Your task to perform on an android device: Clear the cart on costco. Image 0: 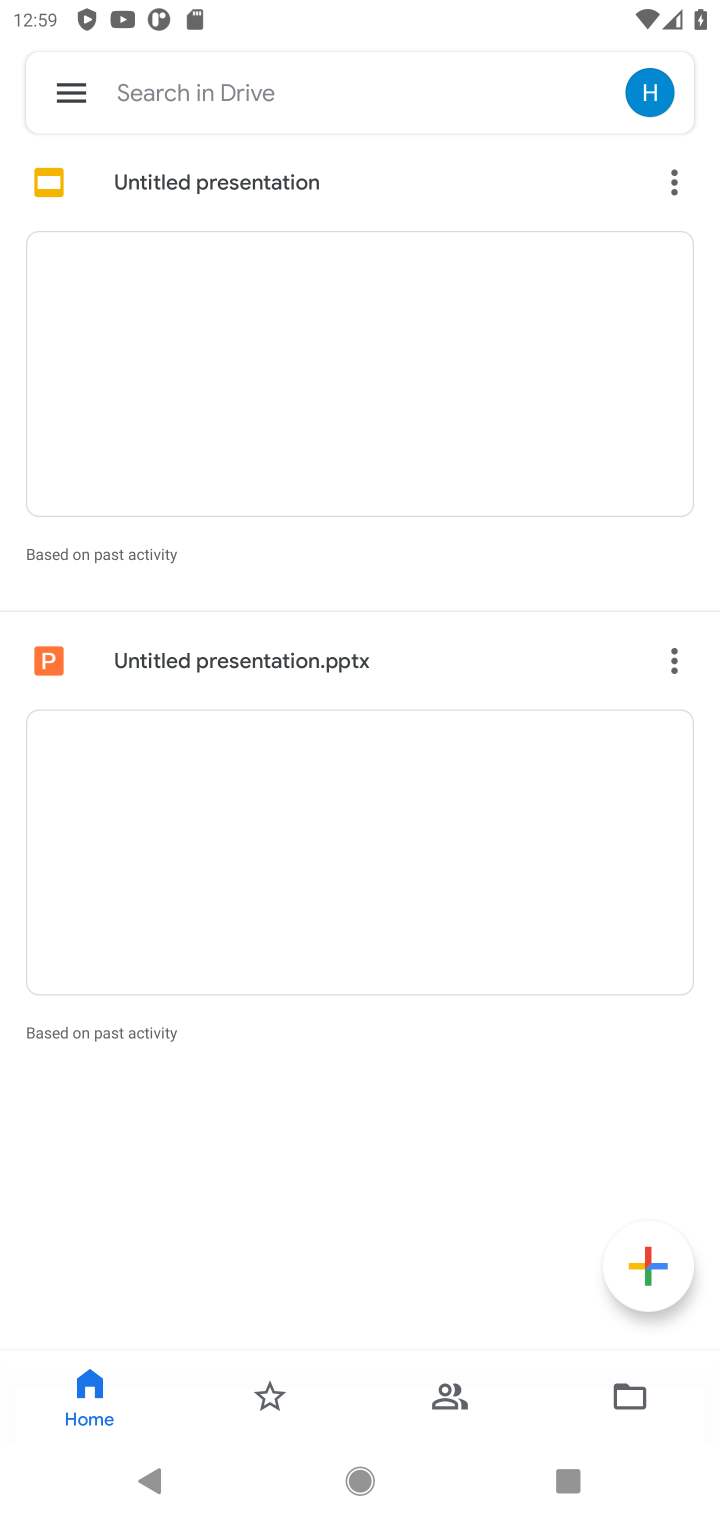
Step 0: press home button
Your task to perform on an android device: Clear the cart on costco. Image 1: 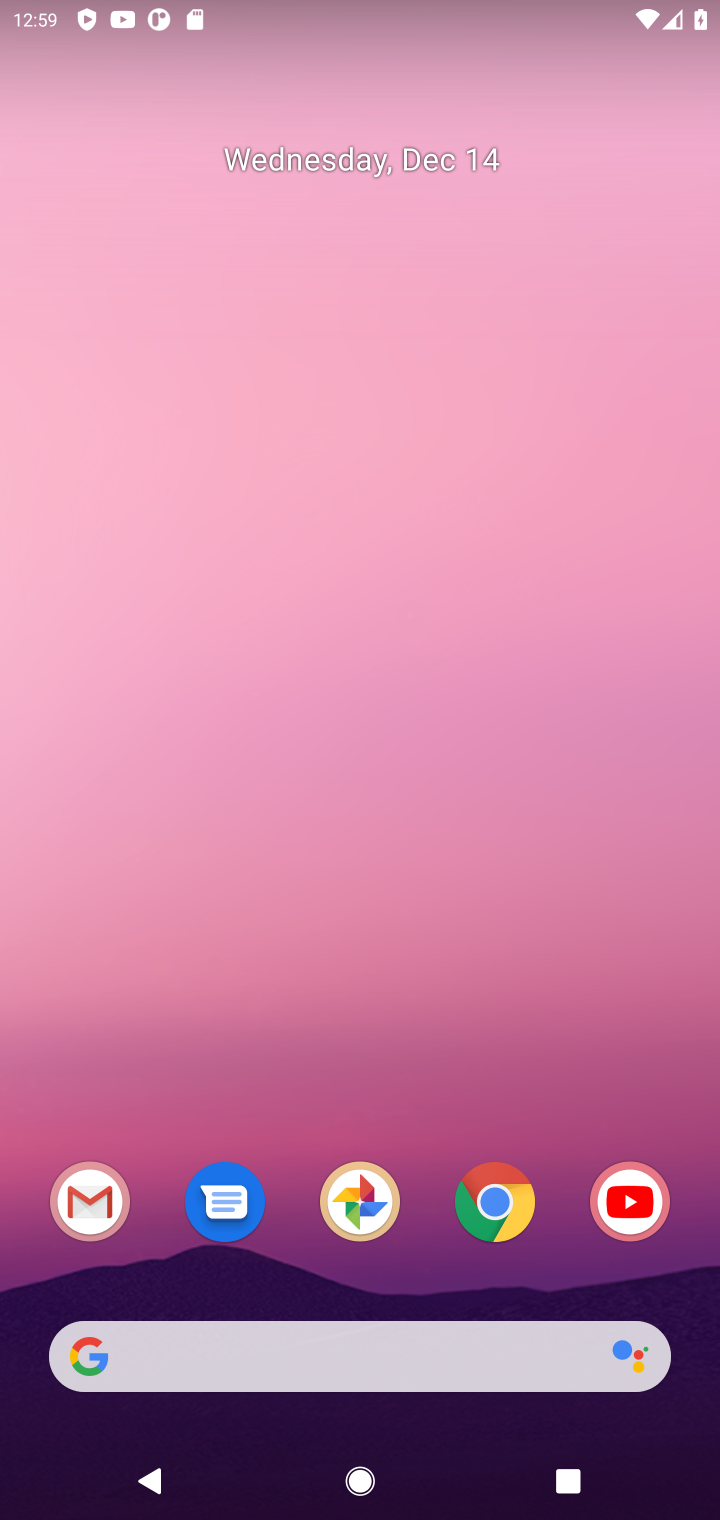
Step 1: click (485, 1189)
Your task to perform on an android device: Clear the cart on costco. Image 2: 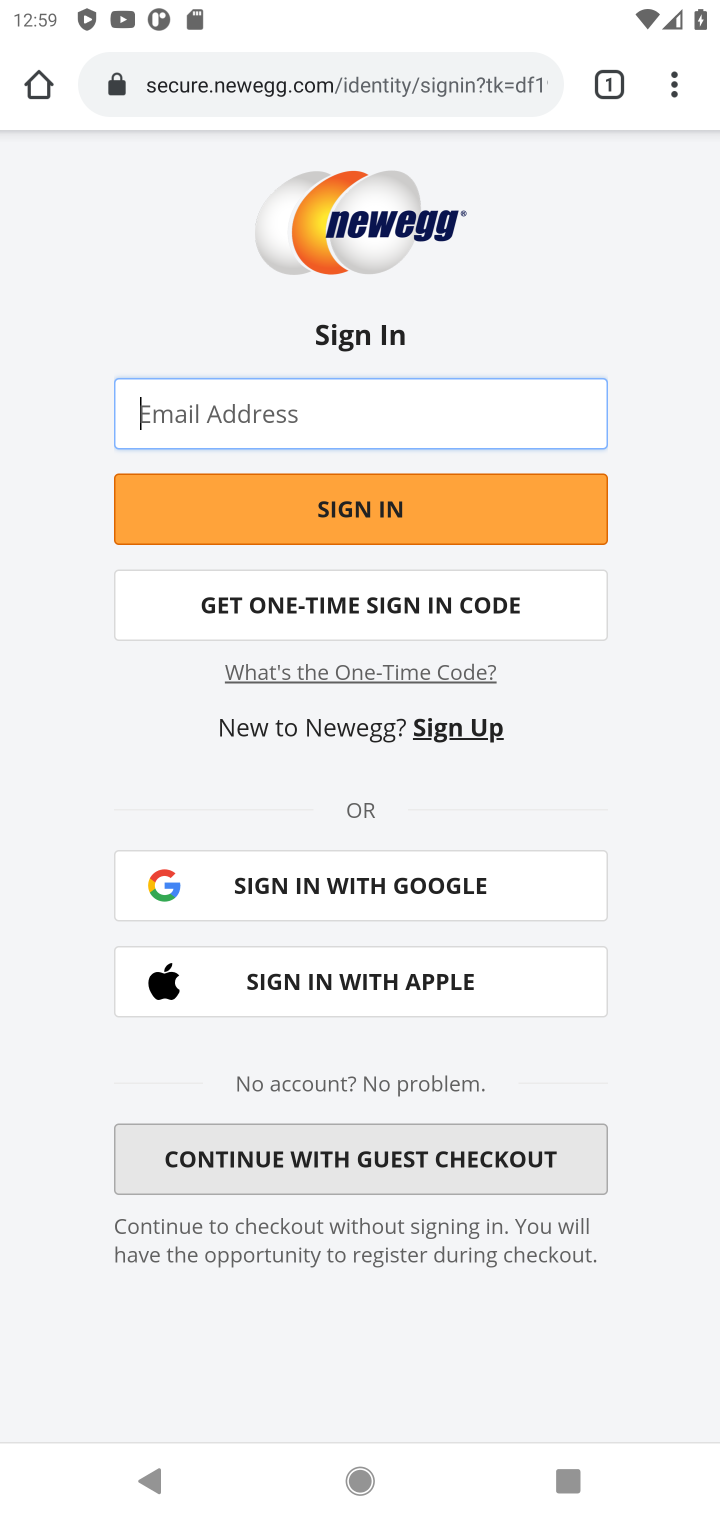
Step 2: click (353, 74)
Your task to perform on an android device: Clear the cart on costco. Image 3: 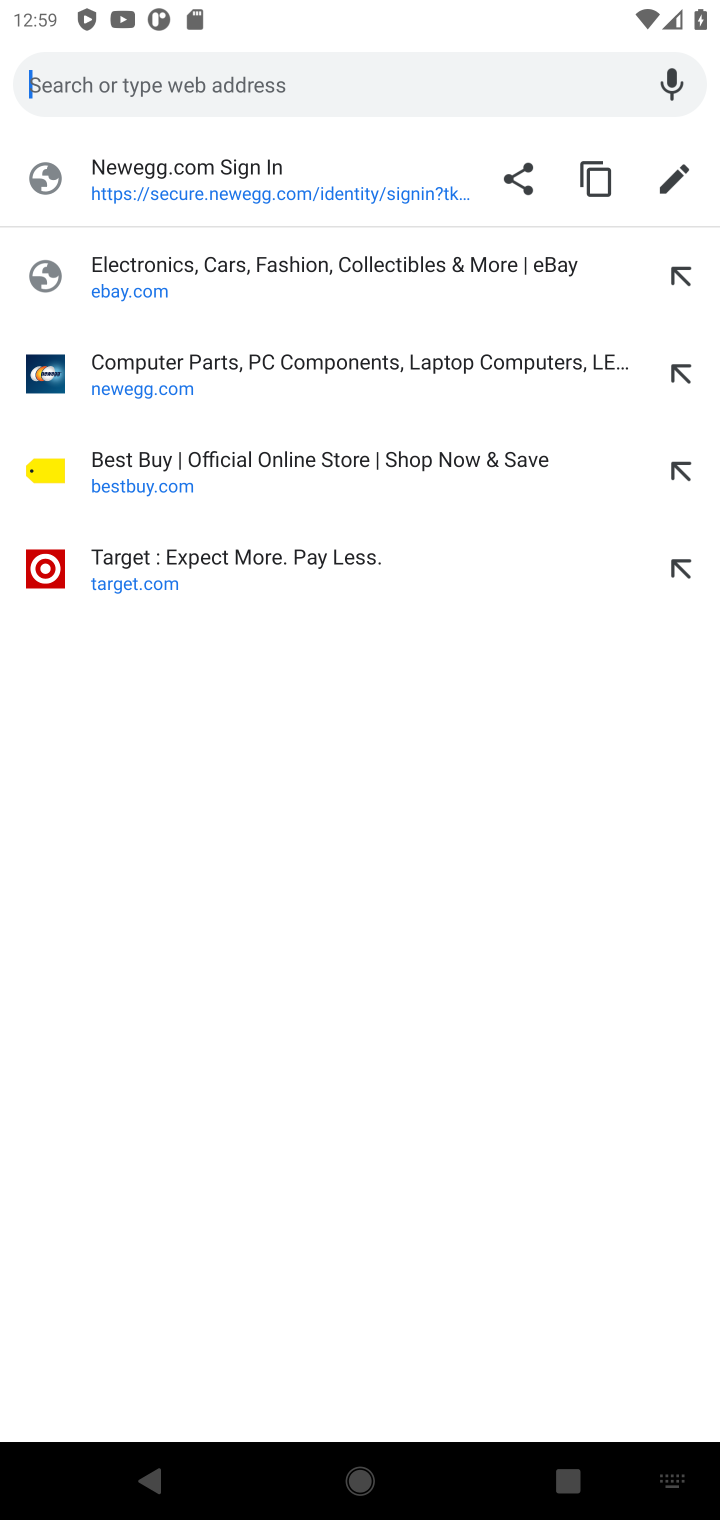
Step 3: type "costco"
Your task to perform on an android device: Clear the cart on costco. Image 4: 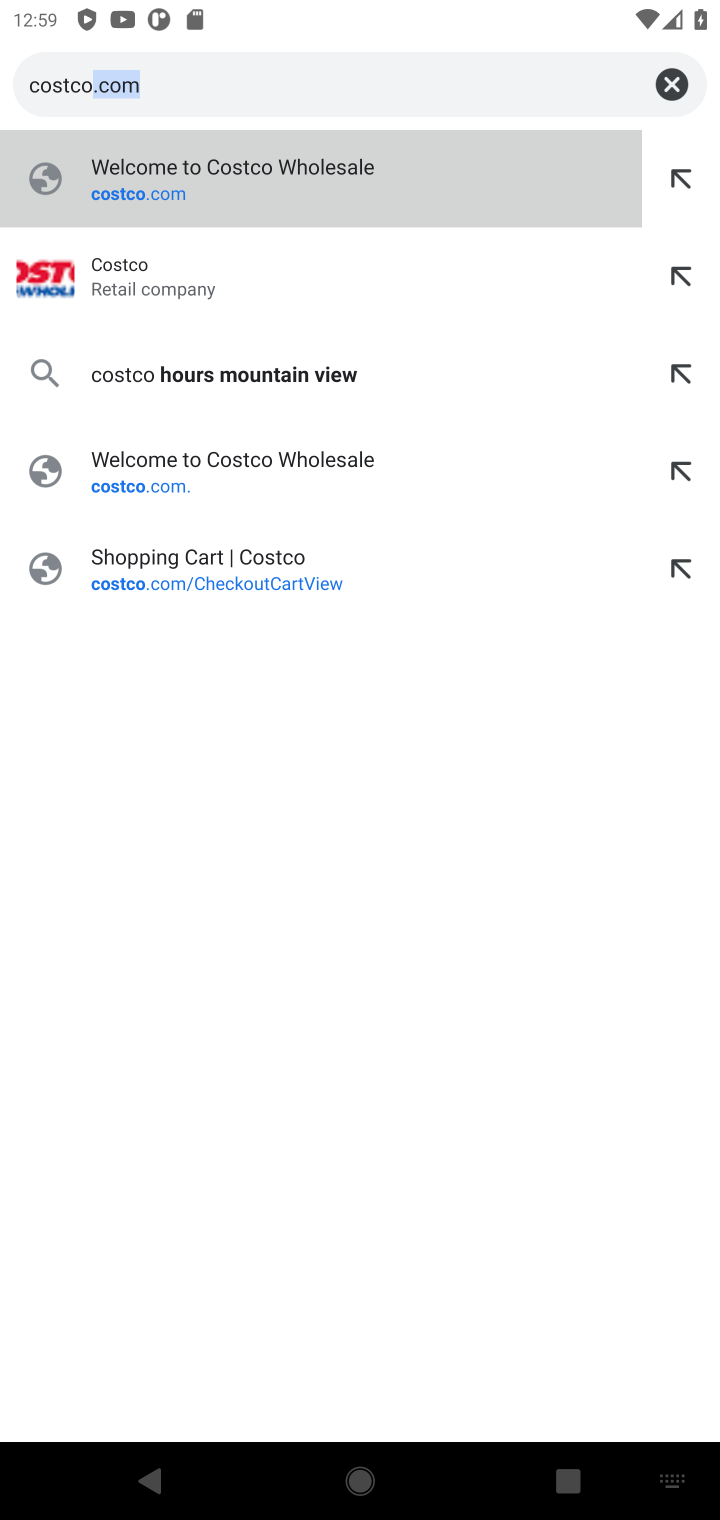
Step 4: click (255, 185)
Your task to perform on an android device: Clear the cart on costco. Image 5: 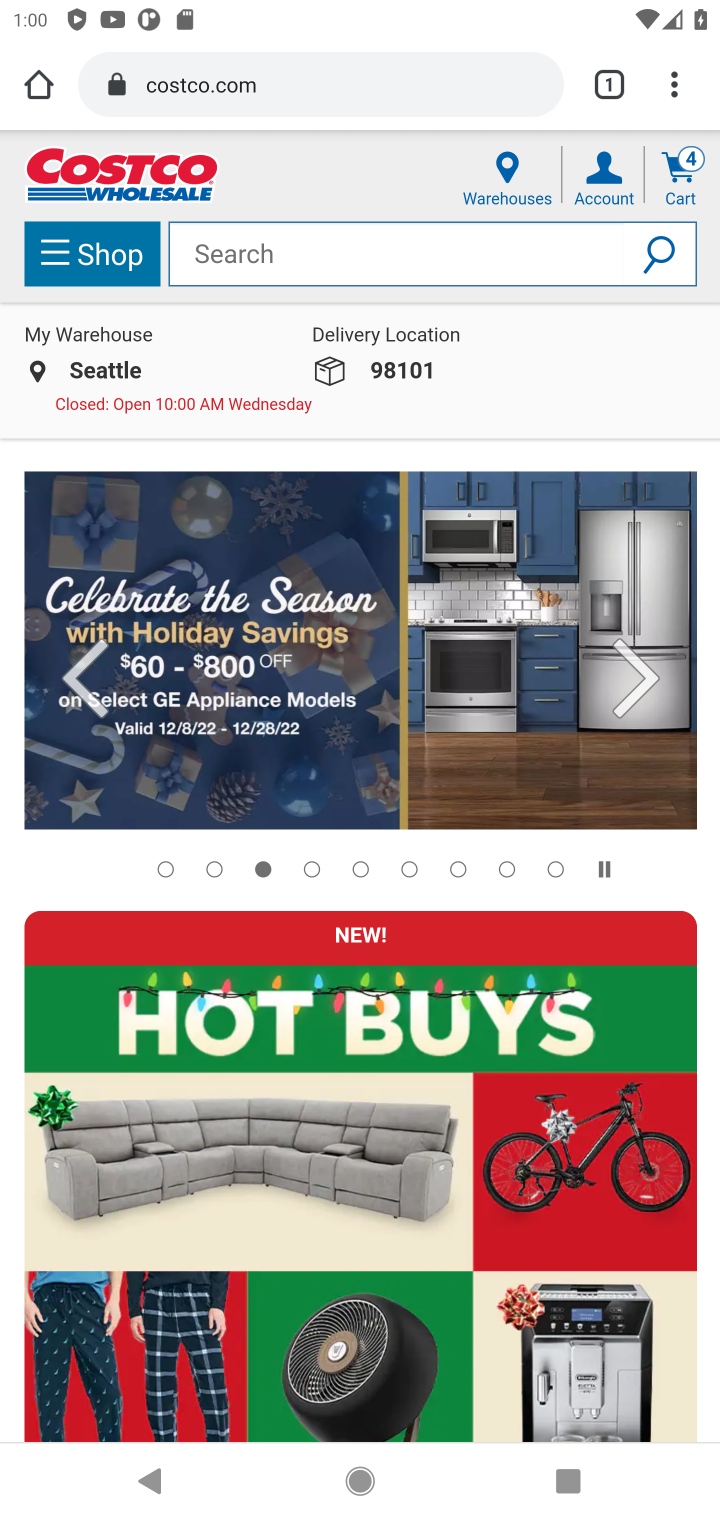
Step 5: click (687, 175)
Your task to perform on an android device: Clear the cart on costco. Image 6: 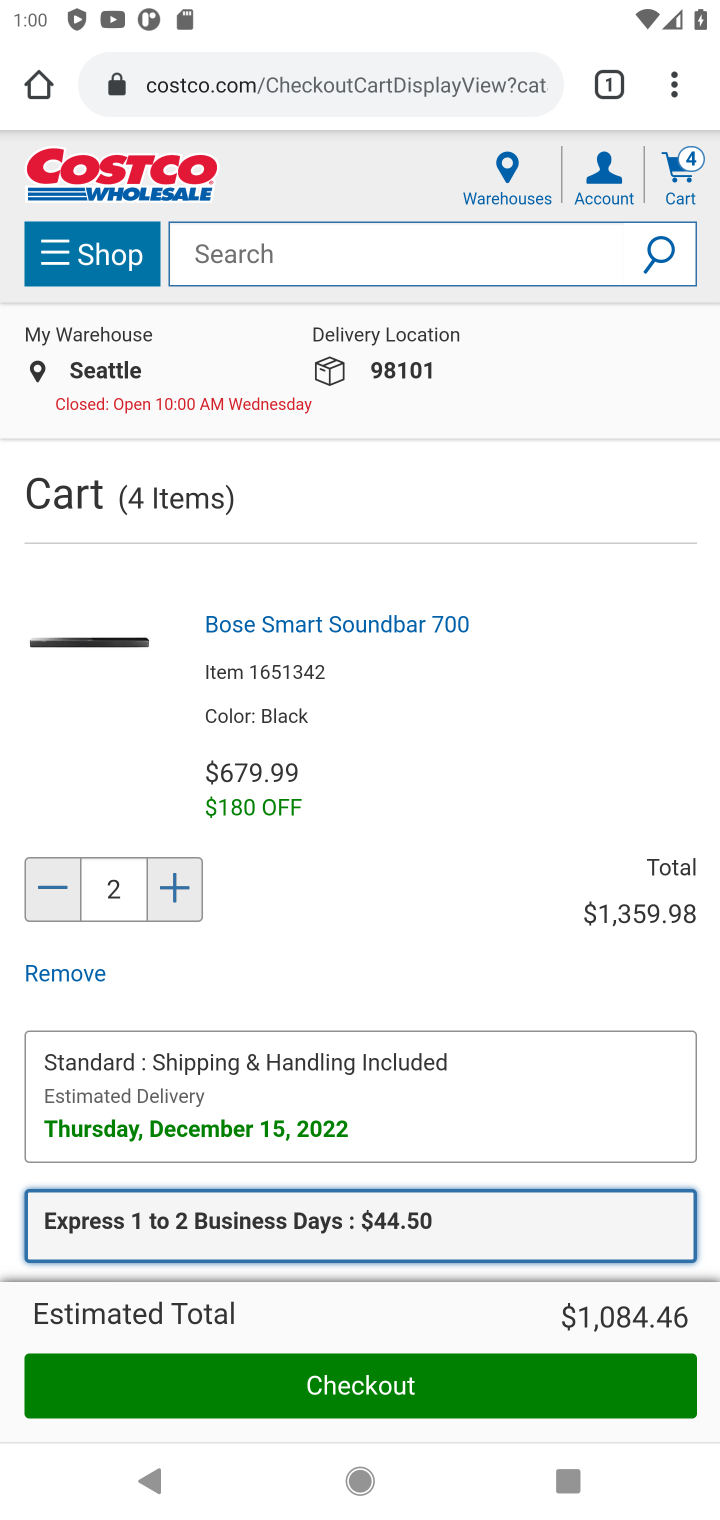
Step 6: click (76, 973)
Your task to perform on an android device: Clear the cart on costco. Image 7: 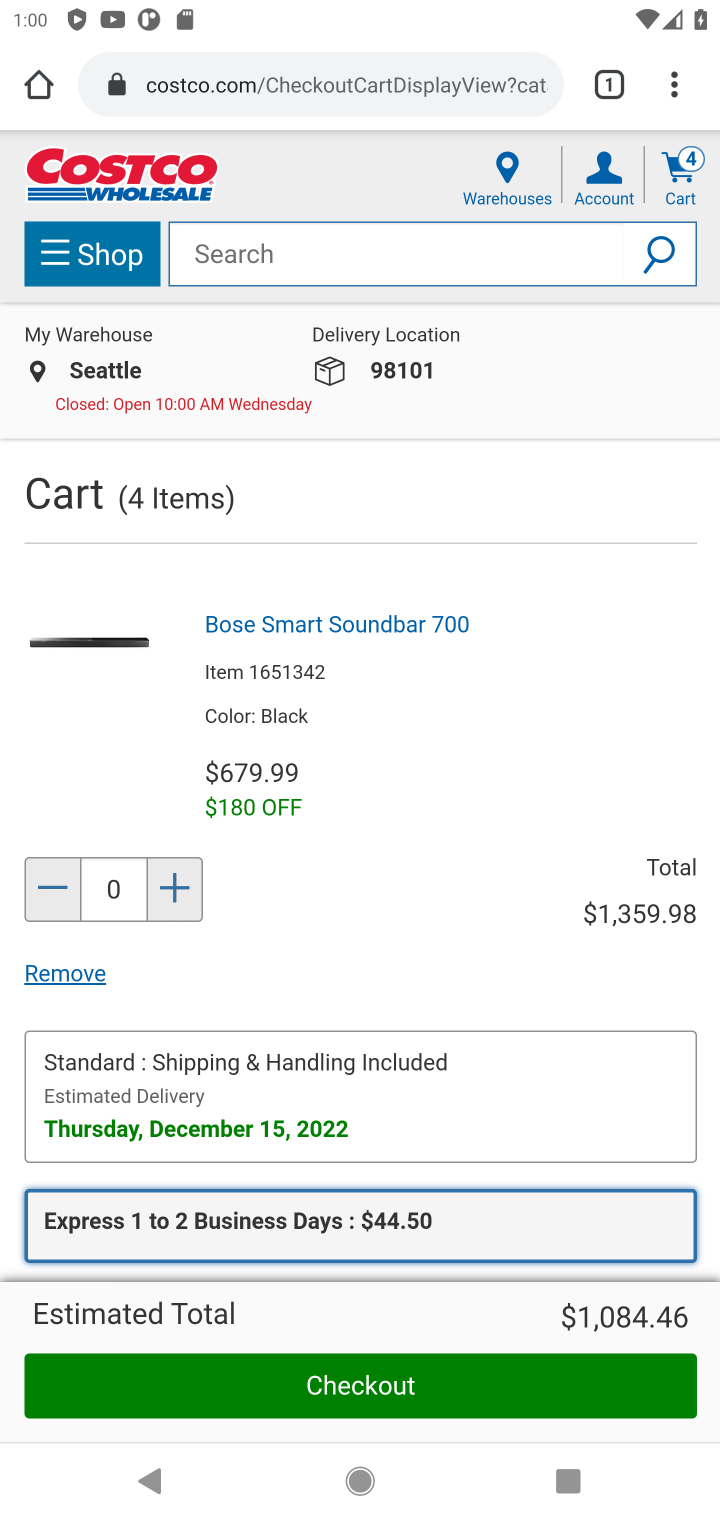
Step 7: click (76, 973)
Your task to perform on an android device: Clear the cart on costco. Image 8: 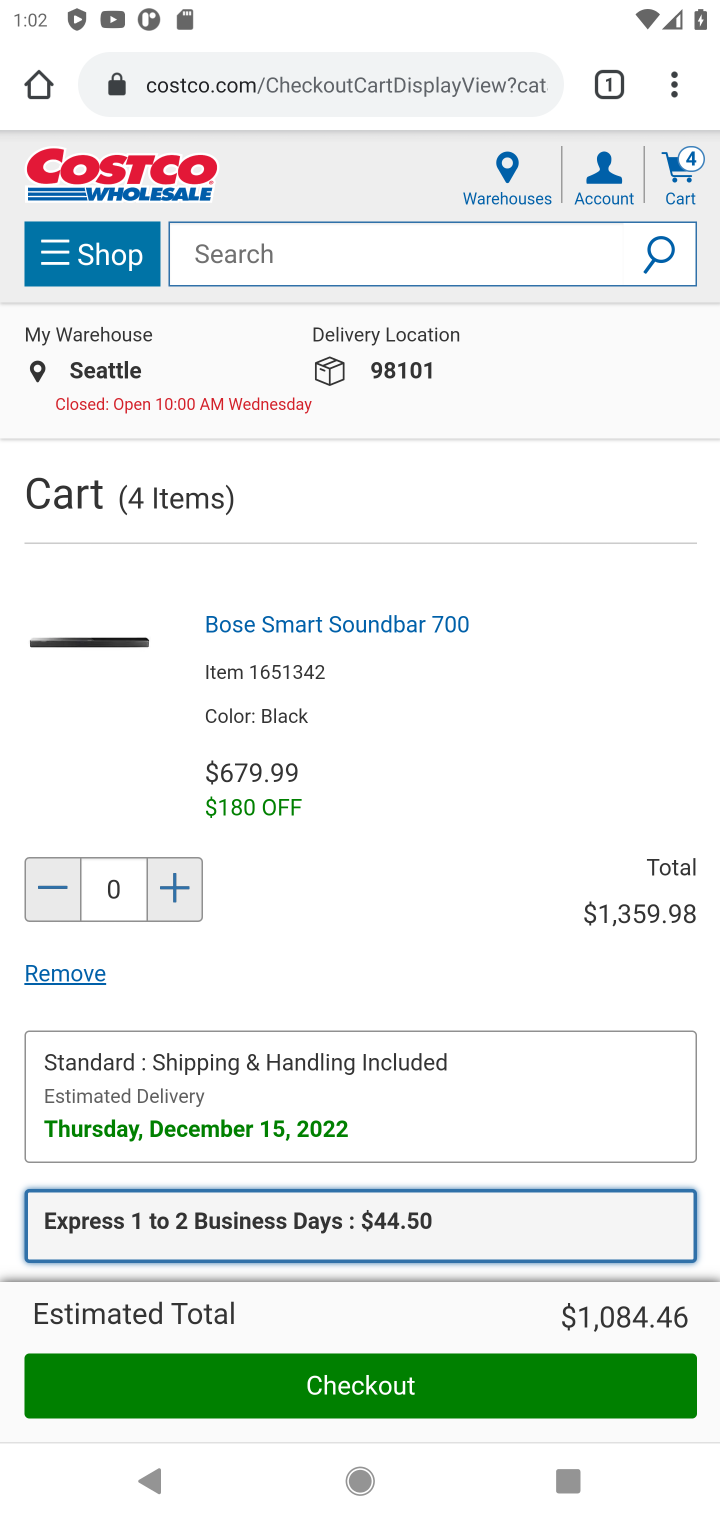
Step 8: task complete